Your task to perform on an android device: Show me the alarms in the clock app Image 0: 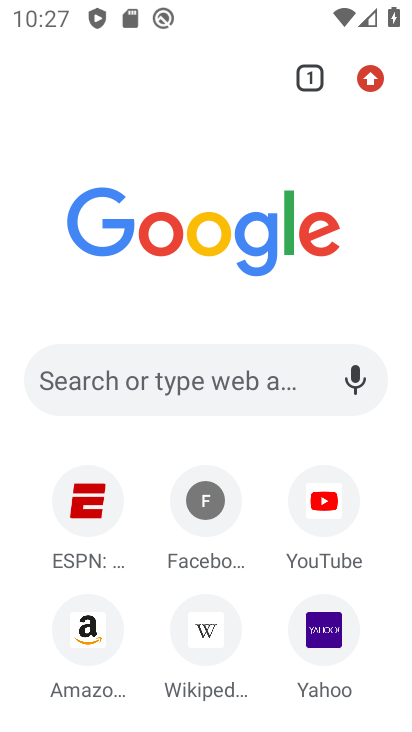
Step 0: press home button
Your task to perform on an android device: Show me the alarms in the clock app Image 1: 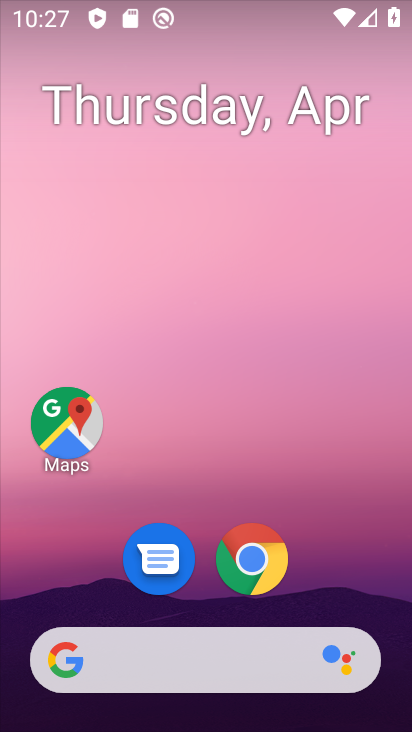
Step 1: drag from (253, 689) to (298, 203)
Your task to perform on an android device: Show me the alarms in the clock app Image 2: 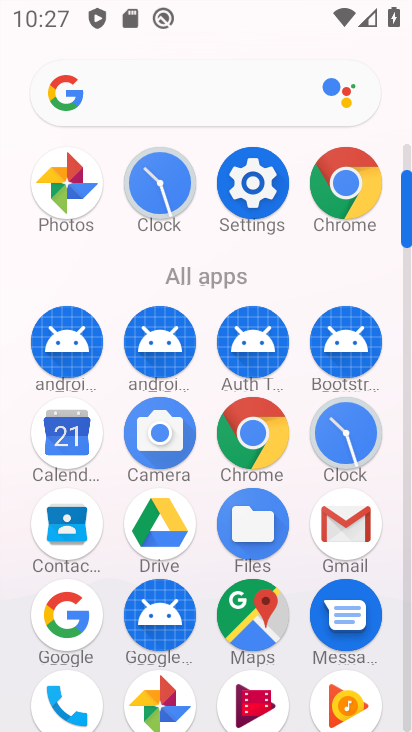
Step 2: click (168, 185)
Your task to perform on an android device: Show me the alarms in the clock app Image 3: 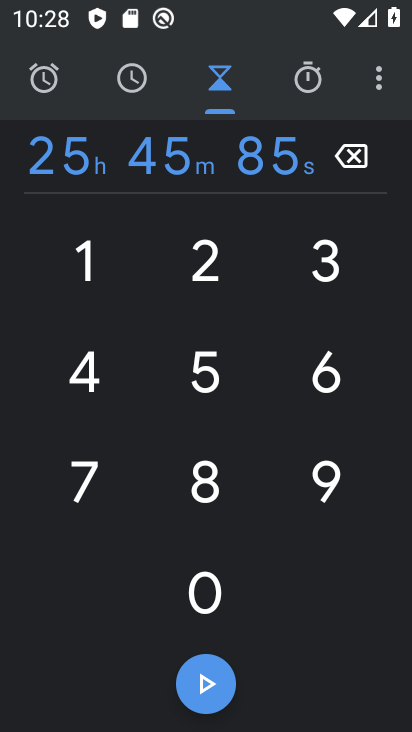
Step 3: click (376, 71)
Your task to perform on an android device: Show me the alarms in the clock app Image 4: 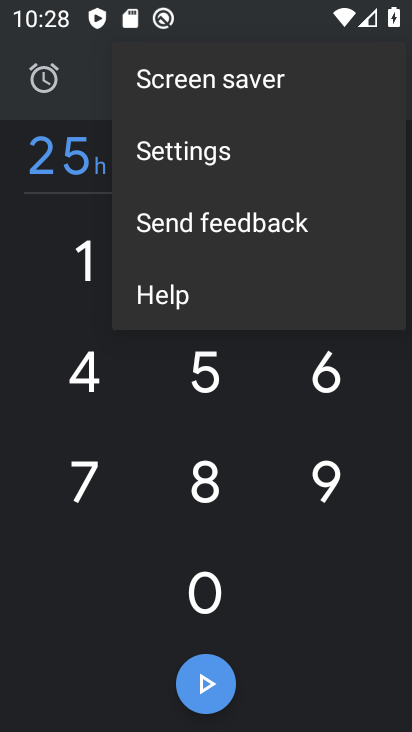
Step 4: click (225, 153)
Your task to perform on an android device: Show me the alarms in the clock app Image 5: 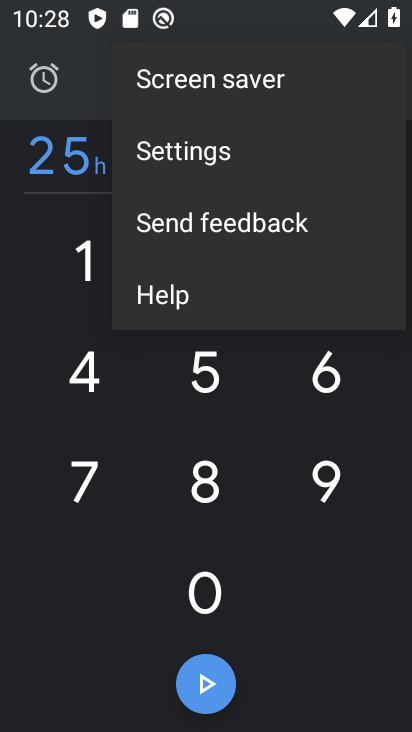
Step 5: click (211, 154)
Your task to perform on an android device: Show me the alarms in the clock app Image 6: 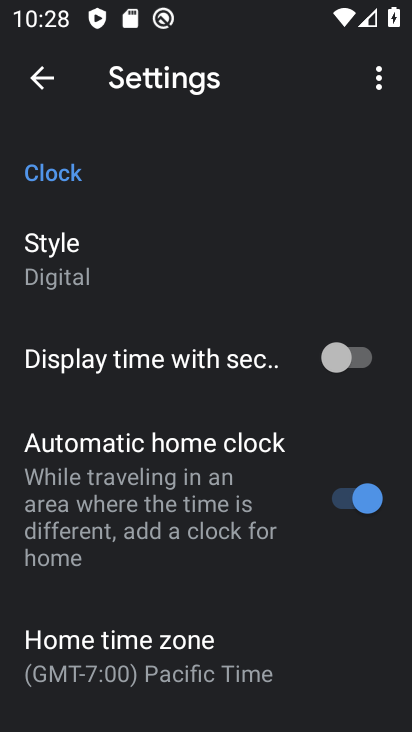
Step 6: click (54, 93)
Your task to perform on an android device: Show me the alarms in the clock app Image 7: 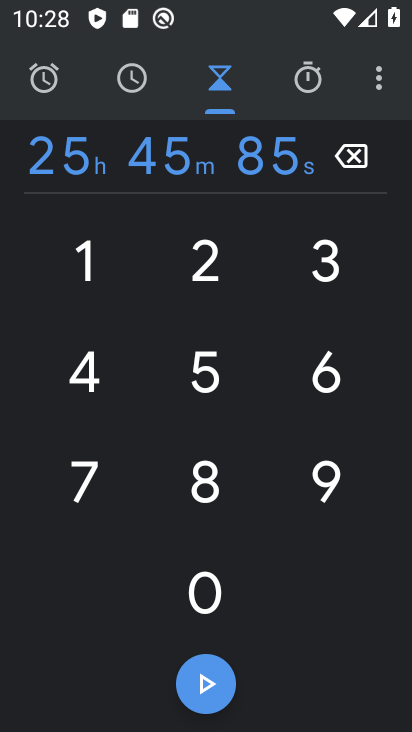
Step 7: click (50, 95)
Your task to perform on an android device: Show me the alarms in the clock app Image 8: 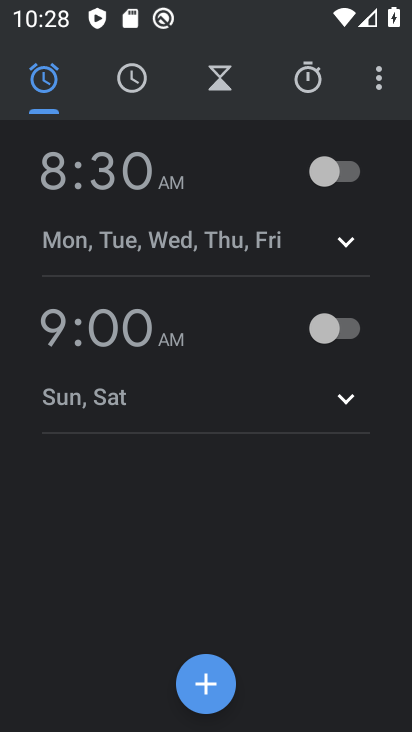
Step 8: click (118, 216)
Your task to perform on an android device: Show me the alarms in the clock app Image 9: 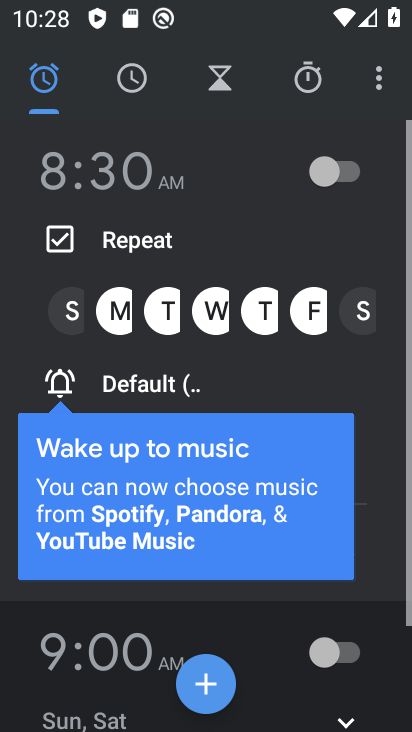
Step 9: task complete